Your task to perform on an android device: move an email to a new category in the gmail app Image 0: 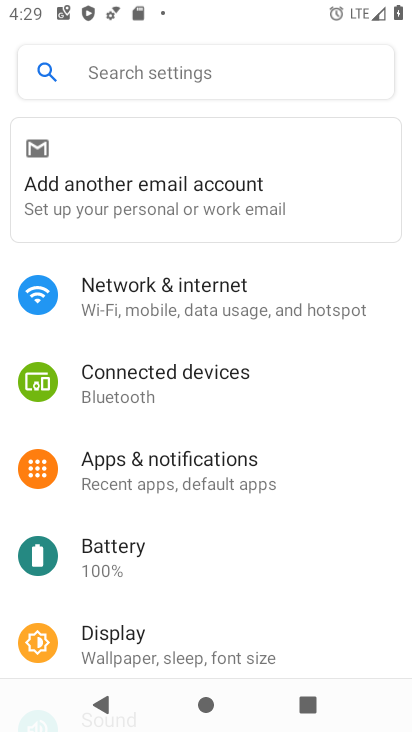
Step 0: press back button
Your task to perform on an android device: move an email to a new category in the gmail app Image 1: 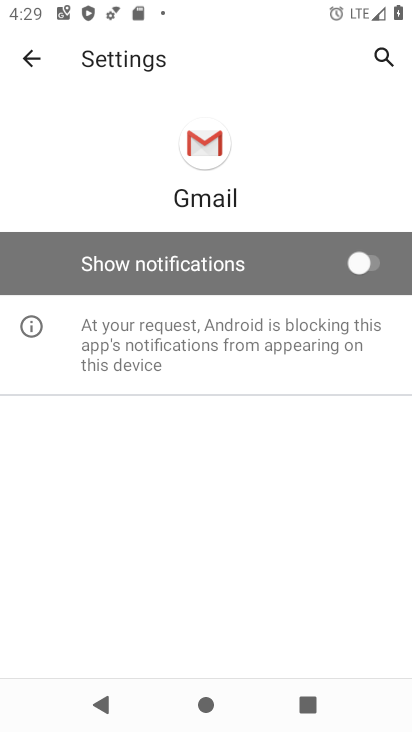
Step 1: press home button
Your task to perform on an android device: move an email to a new category in the gmail app Image 2: 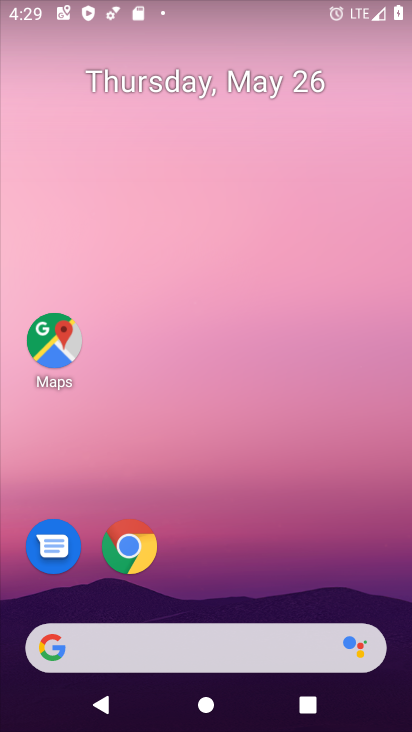
Step 2: drag from (231, 583) to (304, 130)
Your task to perform on an android device: move an email to a new category in the gmail app Image 3: 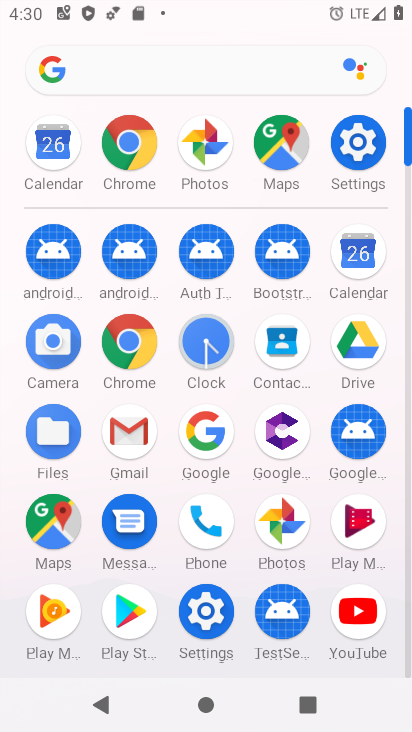
Step 3: click (134, 441)
Your task to perform on an android device: move an email to a new category in the gmail app Image 4: 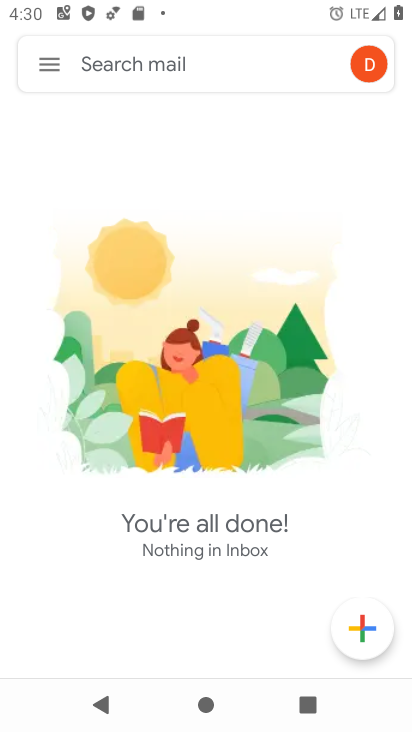
Step 4: click (37, 67)
Your task to perform on an android device: move an email to a new category in the gmail app Image 5: 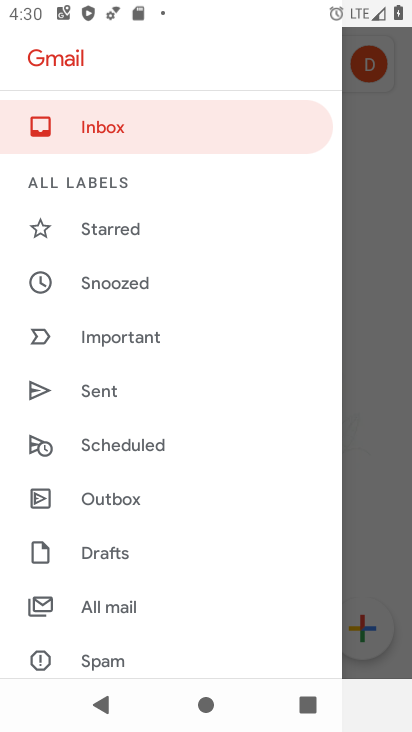
Step 5: drag from (174, 617) to (230, 252)
Your task to perform on an android device: move an email to a new category in the gmail app Image 6: 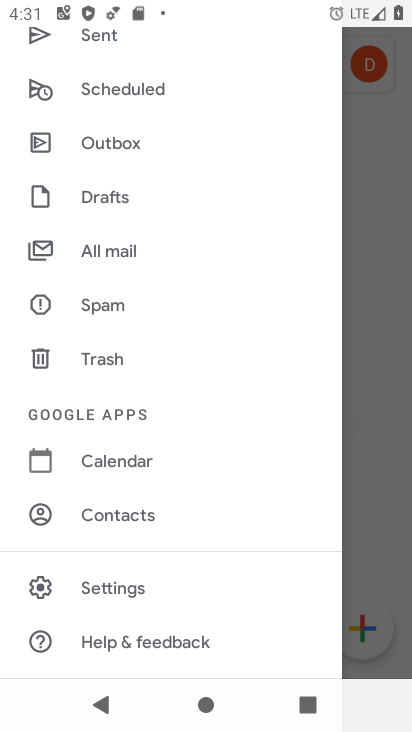
Step 6: click (113, 251)
Your task to perform on an android device: move an email to a new category in the gmail app Image 7: 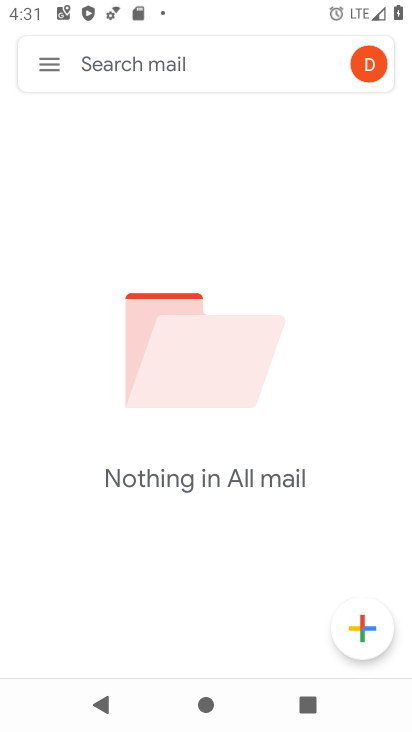
Step 7: task complete